Your task to perform on an android device: add a contact in the contacts app Image 0: 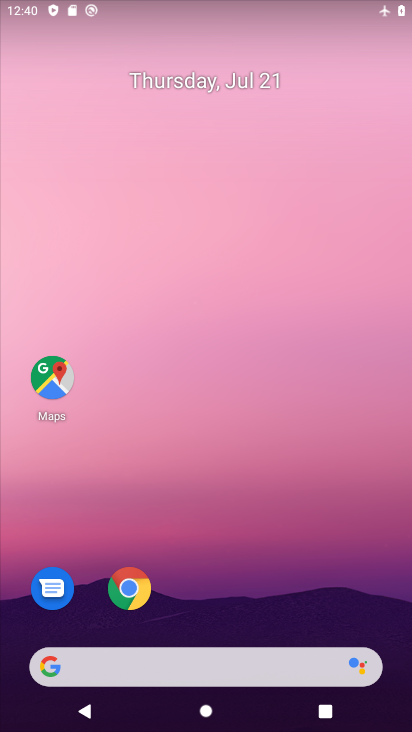
Step 0: drag from (324, 615) to (215, 64)
Your task to perform on an android device: add a contact in the contacts app Image 1: 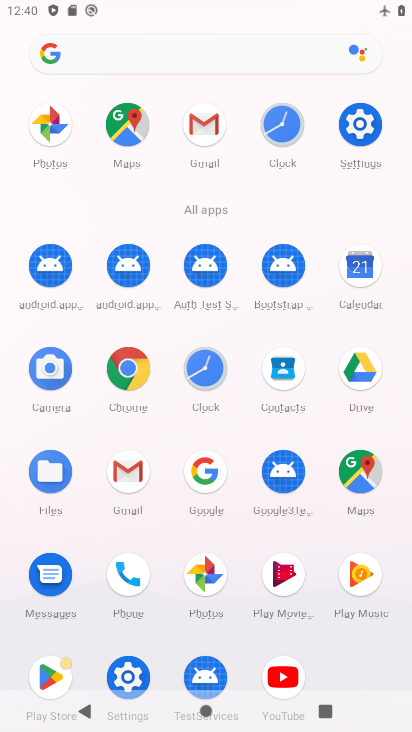
Step 1: click (284, 356)
Your task to perform on an android device: add a contact in the contacts app Image 2: 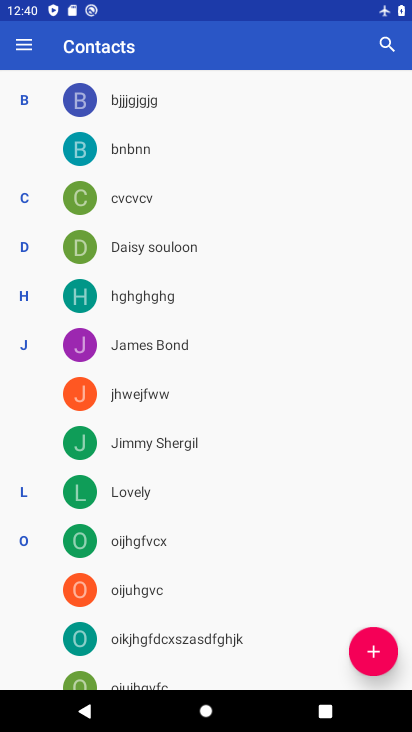
Step 2: click (367, 649)
Your task to perform on an android device: add a contact in the contacts app Image 3: 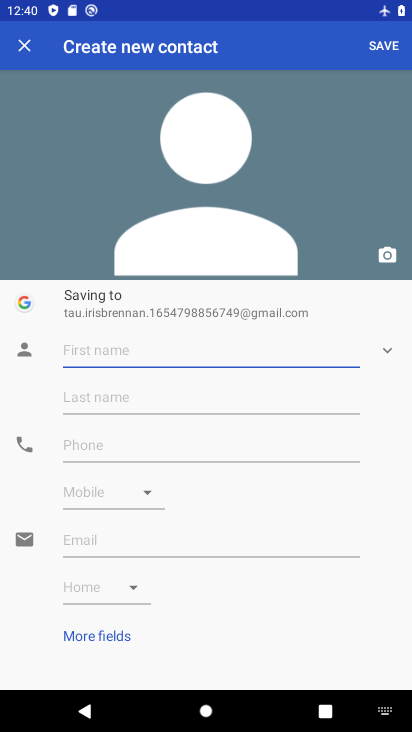
Step 3: type "bjhdbhcdhbhb"
Your task to perform on an android device: add a contact in the contacts app Image 4: 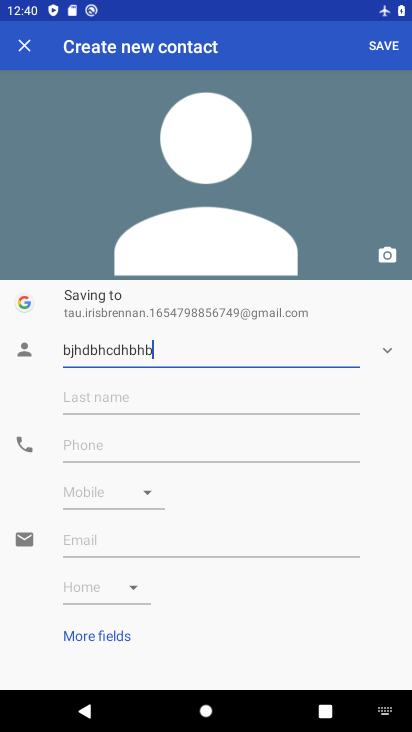
Step 4: click (277, 443)
Your task to perform on an android device: add a contact in the contacts app Image 5: 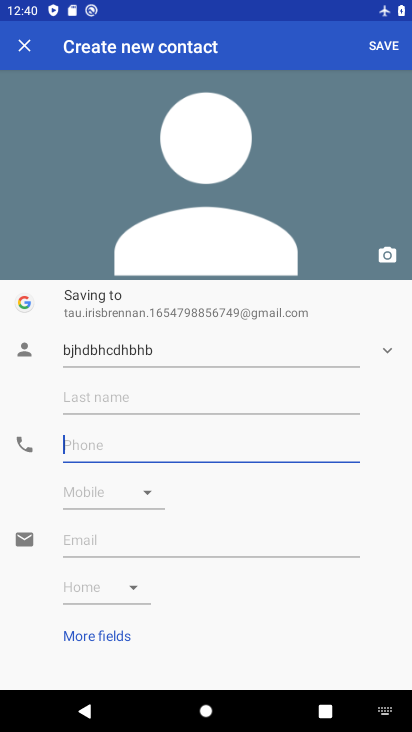
Step 5: type "9878978"
Your task to perform on an android device: add a contact in the contacts app Image 6: 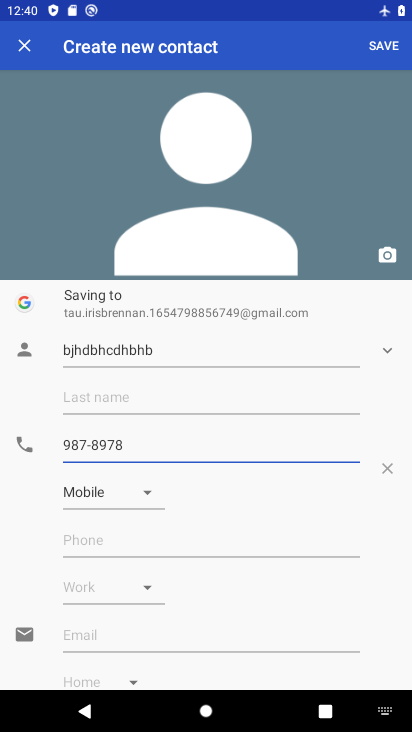
Step 6: click (385, 50)
Your task to perform on an android device: add a contact in the contacts app Image 7: 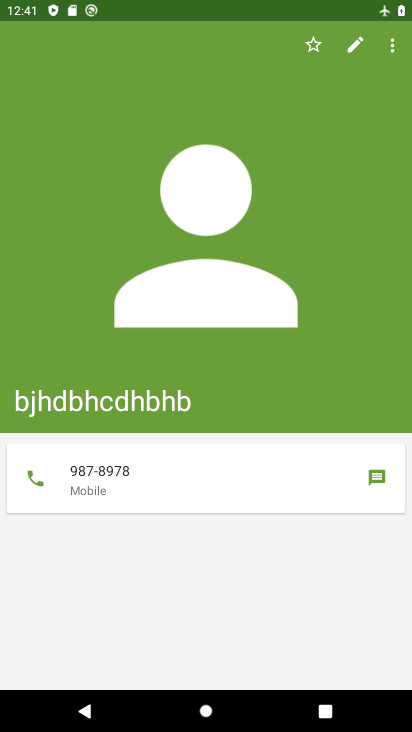
Step 7: task complete